Your task to perform on an android device: Go to location settings Image 0: 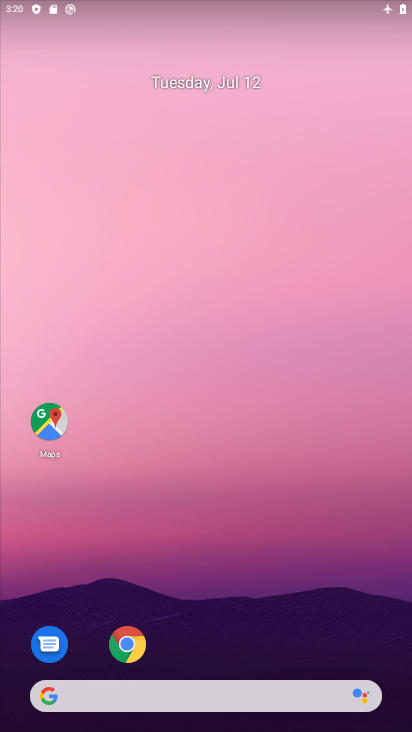
Step 0: drag from (264, 630) to (265, 84)
Your task to perform on an android device: Go to location settings Image 1: 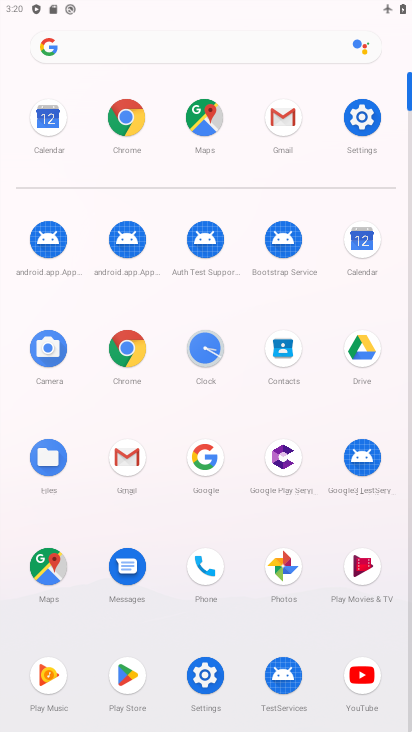
Step 1: click (363, 124)
Your task to perform on an android device: Go to location settings Image 2: 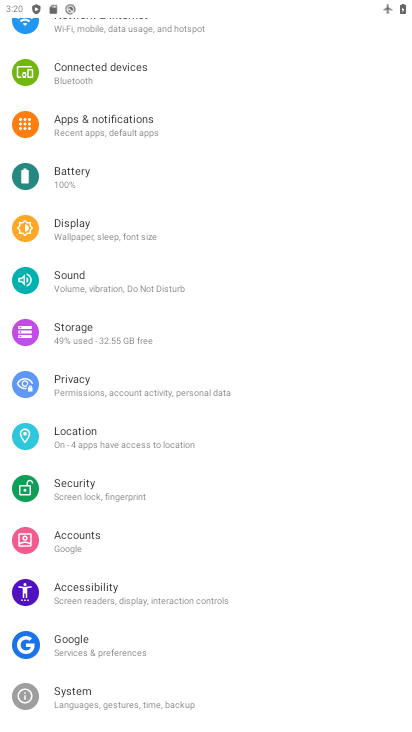
Step 2: click (99, 443)
Your task to perform on an android device: Go to location settings Image 3: 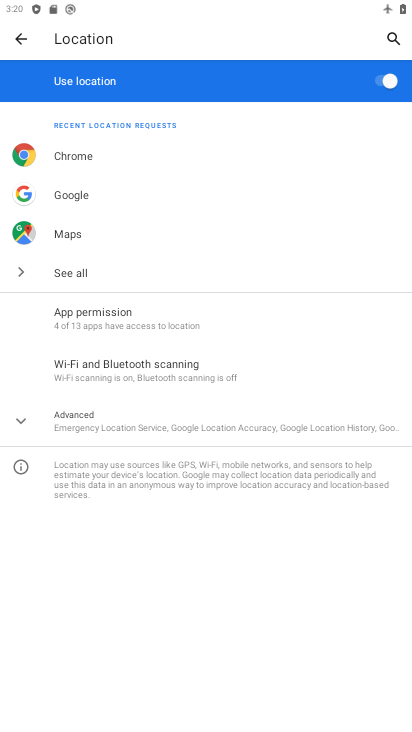
Step 3: task complete